Your task to perform on an android device: Open the Play Movies app and select the watchlist tab. Image 0: 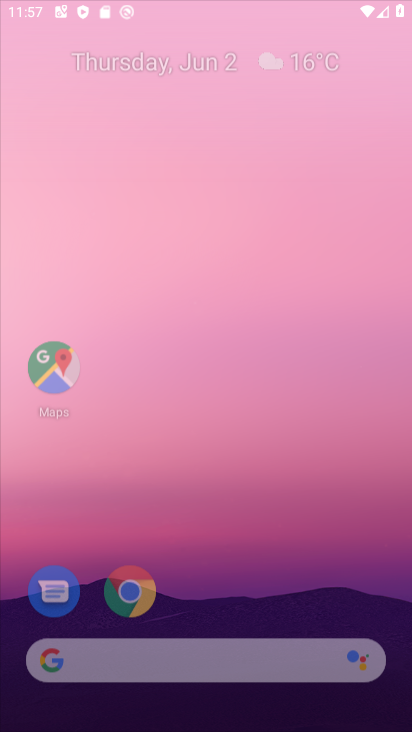
Step 0: click (267, 520)
Your task to perform on an android device: Open the Play Movies app and select the watchlist tab. Image 1: 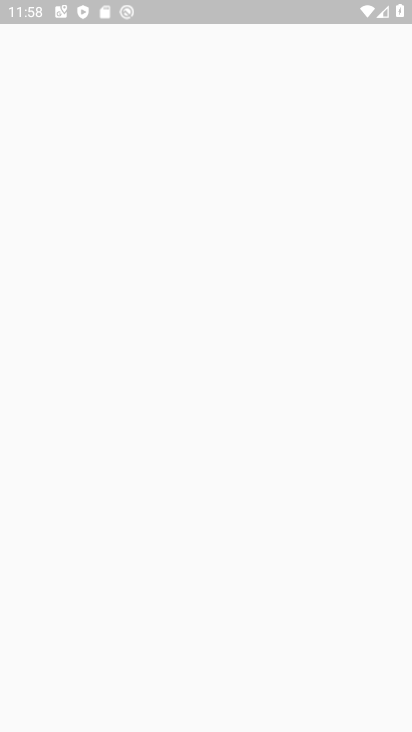
Step 1: press home button
Your task to perform on an android device: Open the Play Movies app and select the watchlist tab. Image 2: 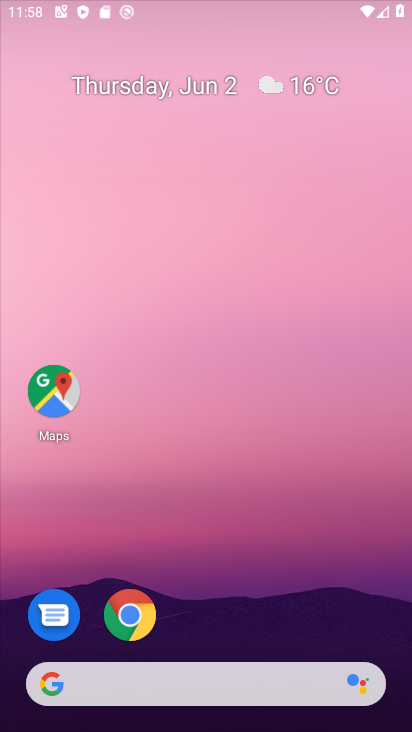
Step 2: drag from (237, 626) to (258, 281)
Your task to perform on an android device: Open the Play Movies app and select the watchlist tab. Image 3: 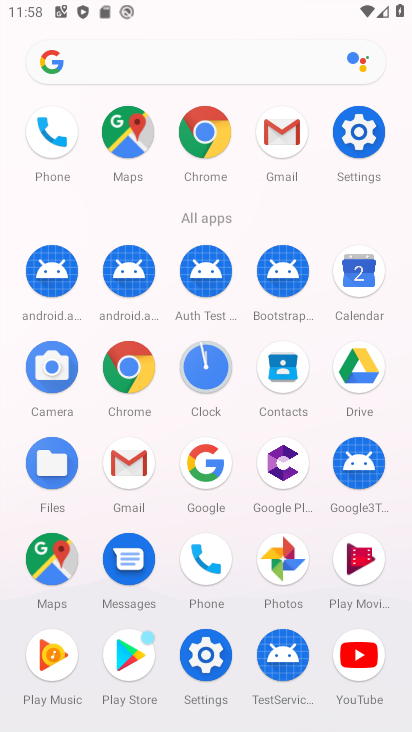
Step 3: click (353, 559)
Your task to perform on an android device: Open the Play Movies app and select the watchlist tab. Image 4: 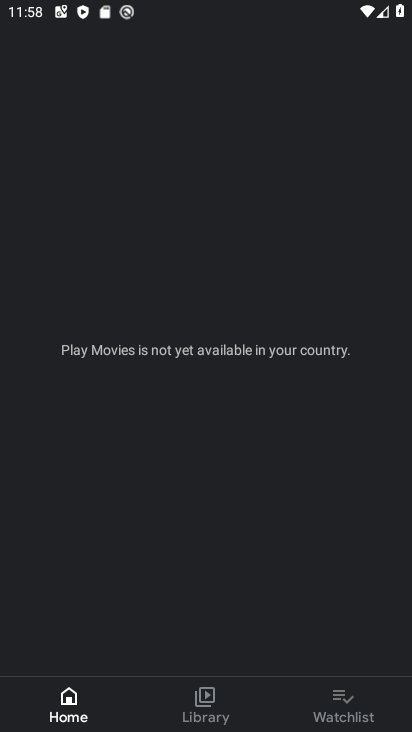
Step 4: click (358, 695)
Your task to perform on an android device: Open the Play Movies app and select the watchlist tab. Image 5: 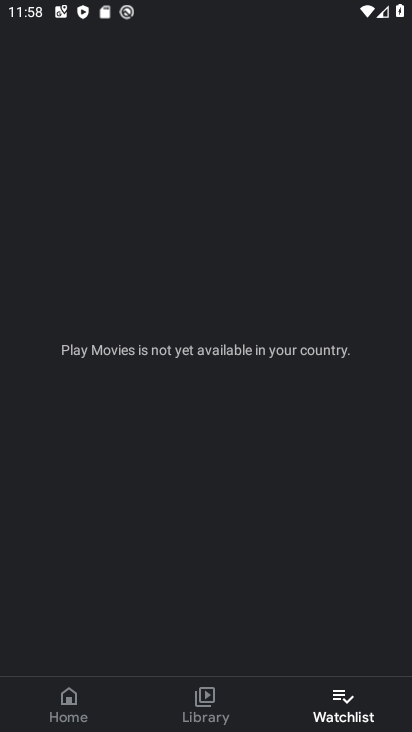
Step 5: task complete